Your task to perform on an android device: open wifi settings Image 0: 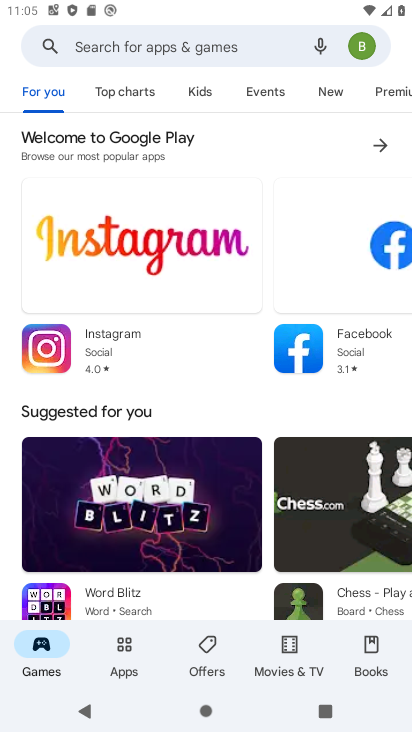
Step 0: press home button
Your task to perform on an android device: open wifi settings Image 1: 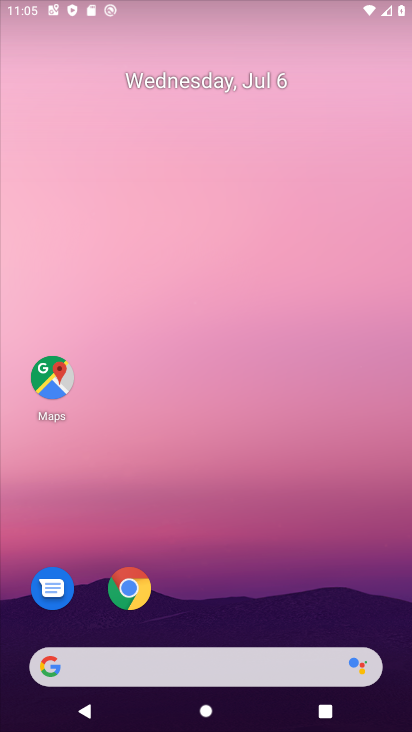
Step 1: drag from (212, 604) to (218, 224)
Your task to perform on an android device: open wifi settings Image 2: 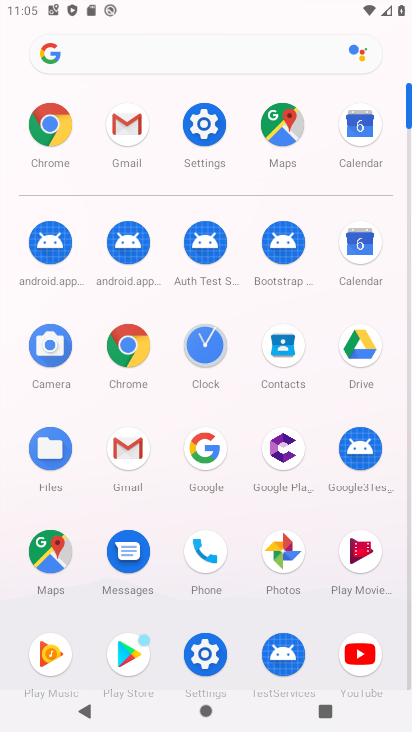
Step 2: click (211, 109)
Your task to perform on an android device: open wifi settings Image 3: 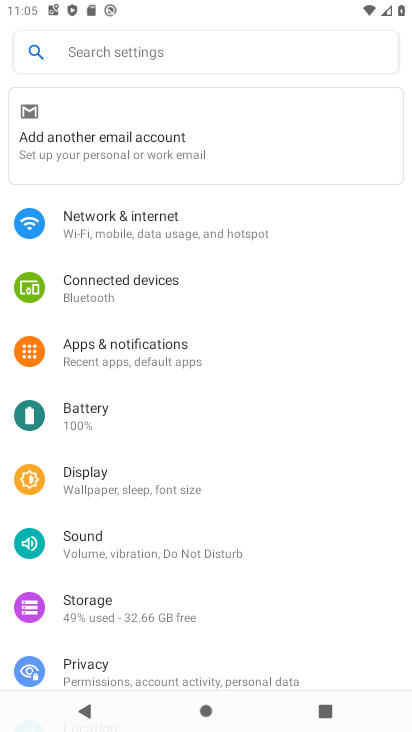
Step 3: click (189, 216)
Your task to perform on an android device: open wifi settings Image 4: 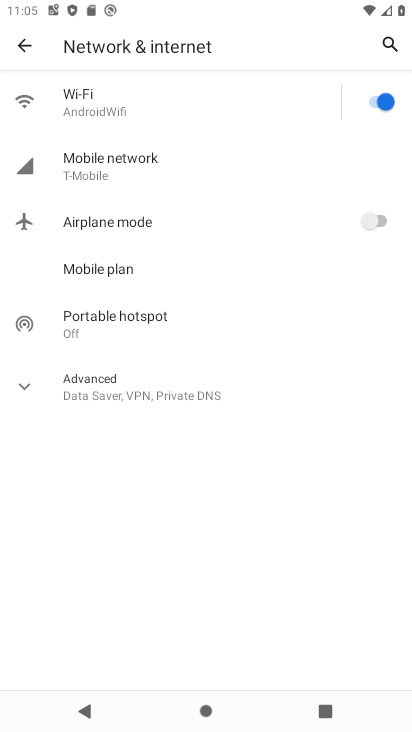
Step 4: click (149, 95)
Your task to perform on an android device: open wifi settings Image 5: 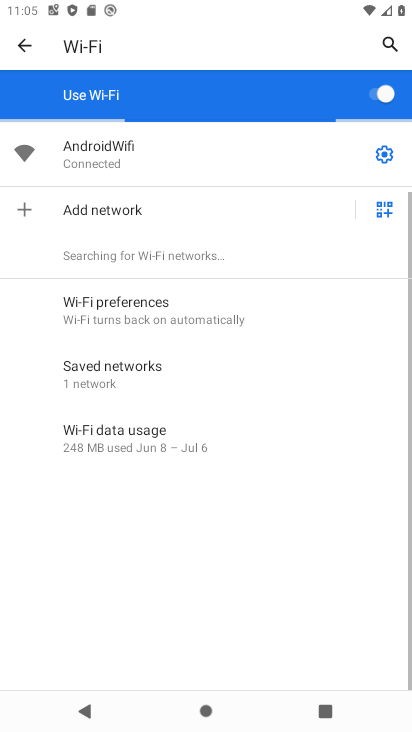
Step 5: task complete